Your task to perform on an android device: turn smart compose on in the gmail app Image 0: 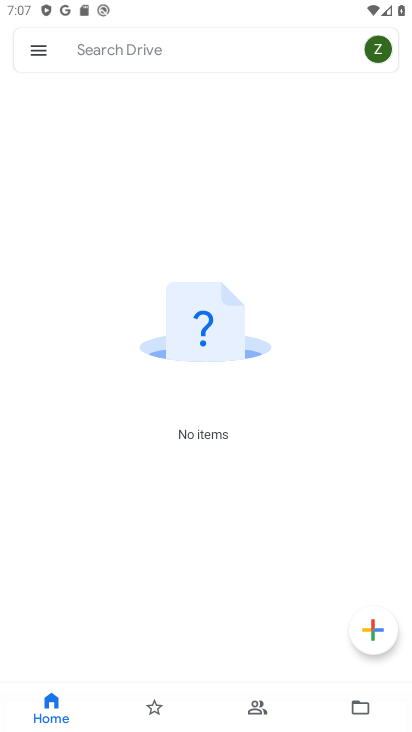
Step 0: press home button
Your task to perform on an android device: turn smart compose on in the gmail app Image 1: 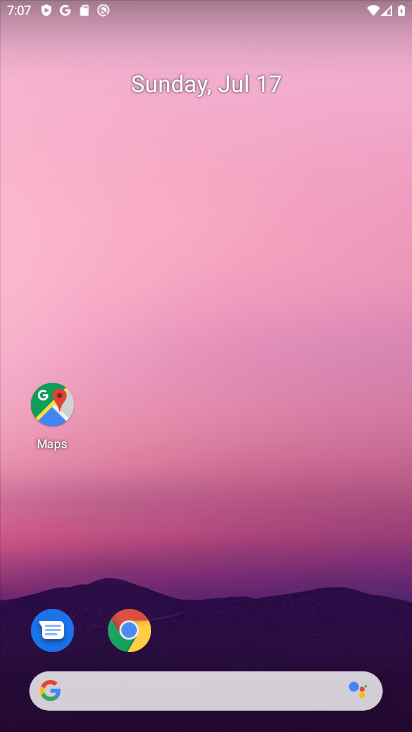
Step 1: drag from (182, 557) to (196, 103)
Your task to perform on an android device: turn smart compose on in the gmail app Image 2: 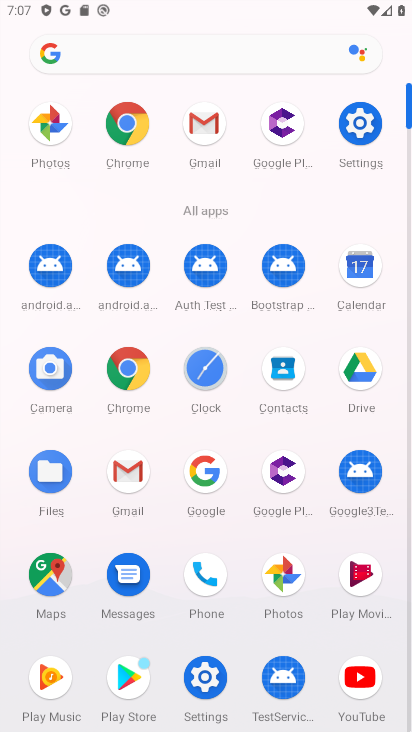
Step 2: click (204, 121)
Your task to perform on an android device: turn smart compose on in the gmail app Image 3: 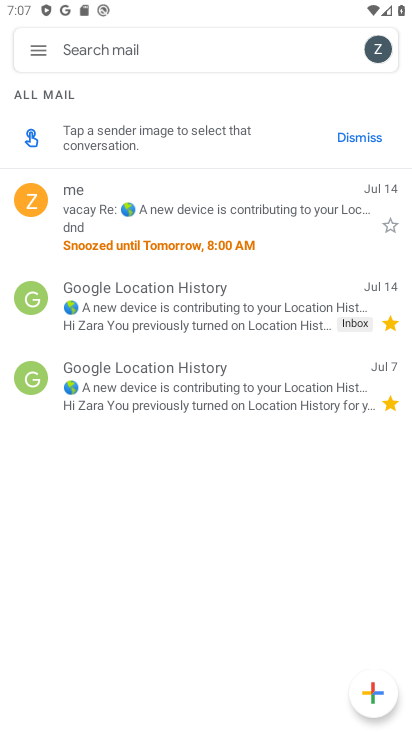
Step 3: click (34, 40)
Your task to perform on an android device: turn smart compose on in the gmail app Image 4: 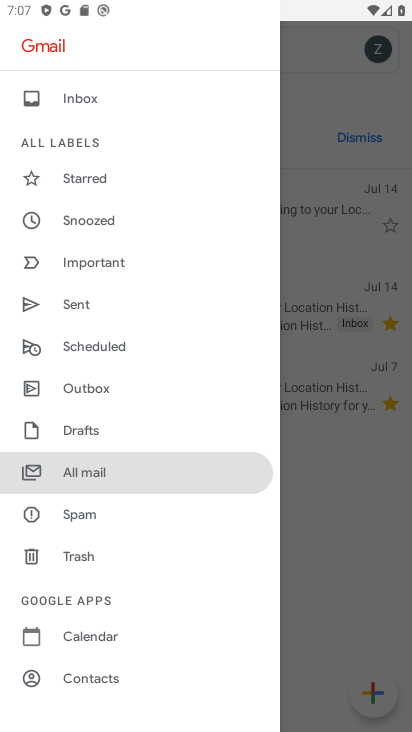
Step 4: drag from (134, 679) to (133, 200)
Your task to perform on an android device: turn smart compose on in the gmail app Image 5: 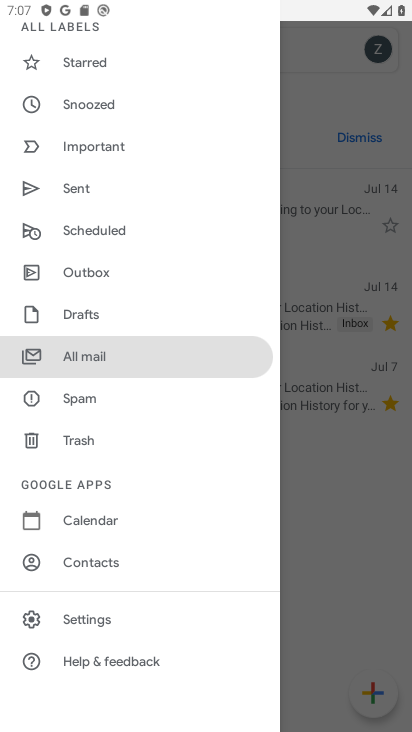
Step 5: click (93, 623)
Your task to perform on an android device: turn smart compose on in the gmail app Image 6: 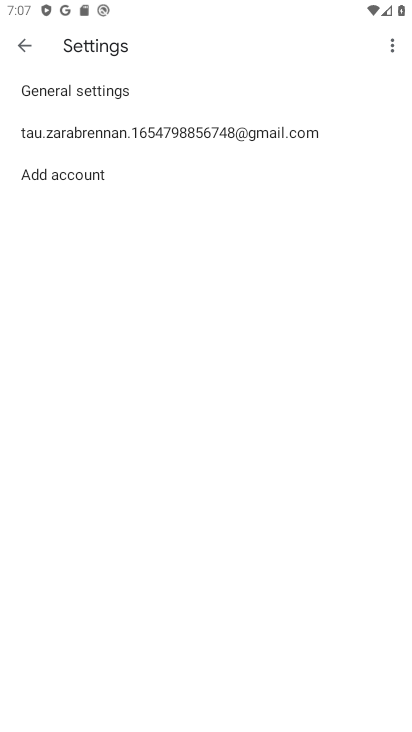
Step 6: click (199, 129)
Your task to perform on an android device: turn smart compose on in the gmail app Image 7: 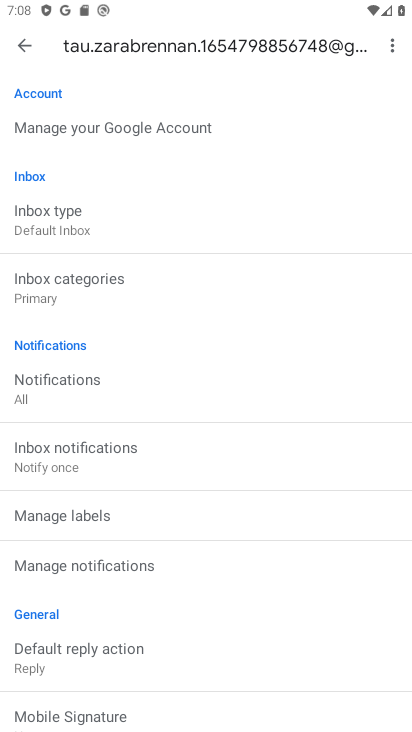
Step 7: drag from (134, 636) to (203, 4)
Your task to perform on an android device: turn smart compose on in the gmail app Image 8: 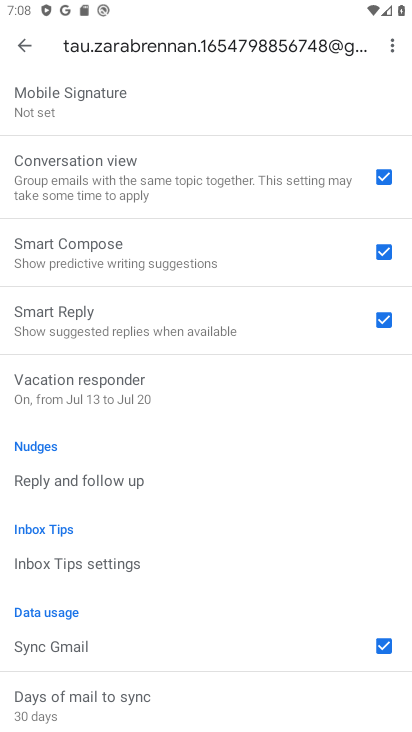
Step 8: click (383, 255)
Your task to perform on an android device: turn smart compose on in the gmail app Image 9: 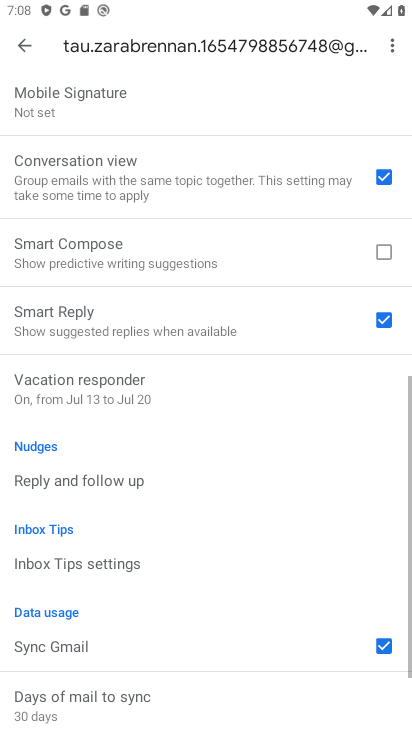
Step 9: click (383, 255)
Your task to perform on an android device: turn smart compose on in the gmail app Image 10: 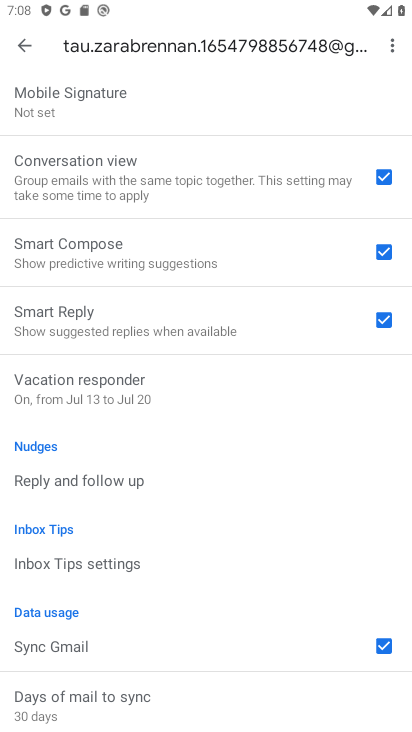
Step 10: task complete